Your task to perform on an android device: create a new album in the google photos Image 0: 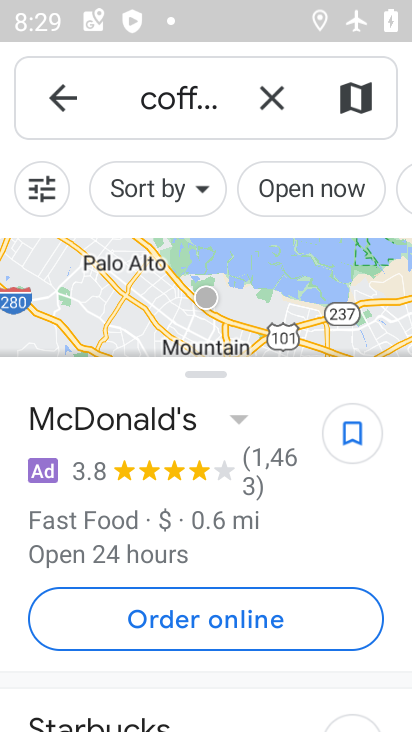
Step 0: press home button
Your task to perform on an android device: create a new album in the google photos Image 1: 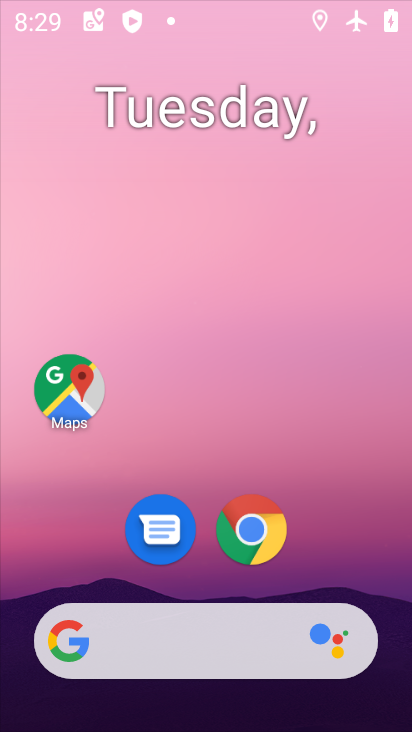
Step 1: drag from (199, 685) to (216, 32)
Your task to perform on an android device: create a new album in the google photos Image 2: 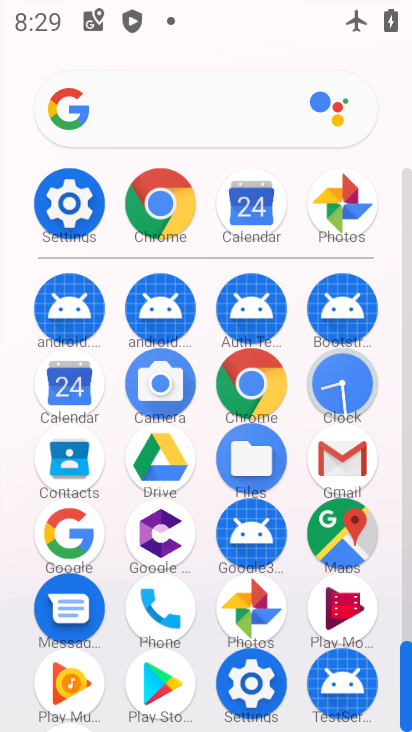
Step 2: drag from (260, 502) to (306, 95)
Your task to perform on an android device: create a new album in the google photos Image 3: 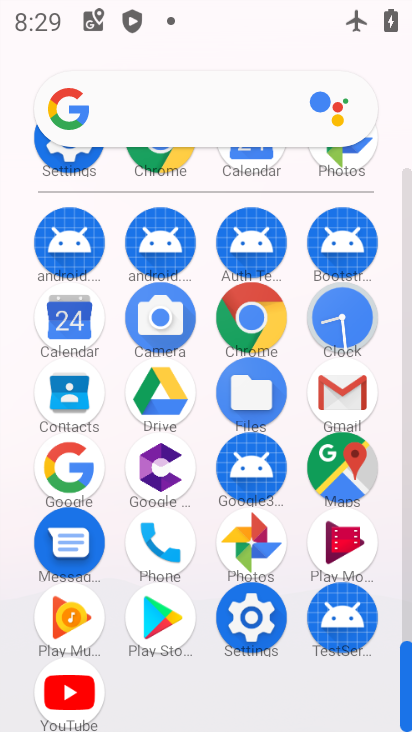
Step 3: click (263, 557)
Your task to perform on an android device: create a new album in the google photos Image 4: 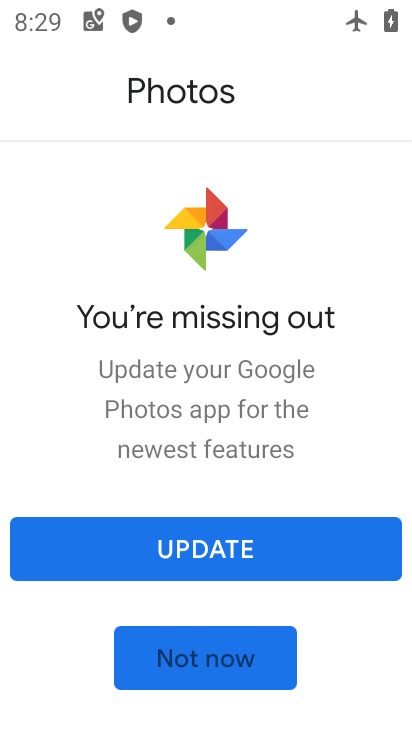
Step 4: click (211, 660)
Your task to perform on an android device: create a new album in the google photos Image 5: 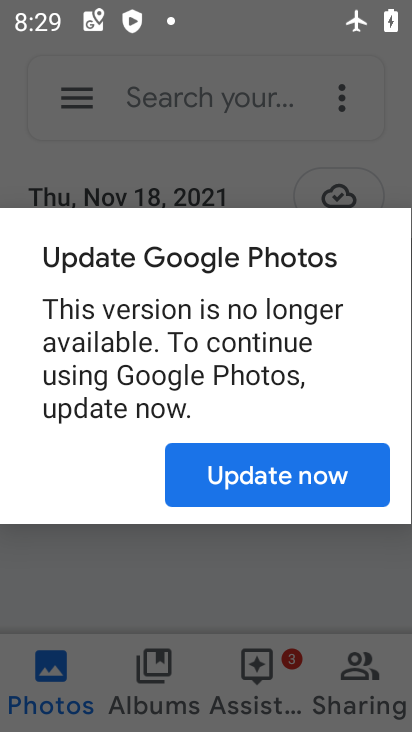
Step 5: task complete